Your task to perform on an android device: turn off notifications settings in the gmail app Image 0: 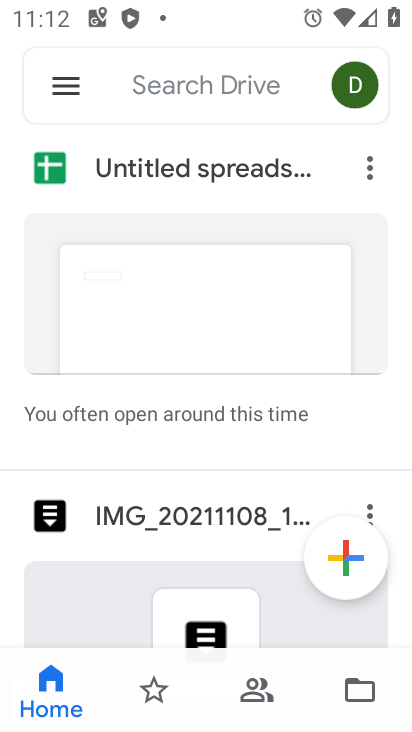
Step 0: press home button
Your task to perform on an android device: turn off notifications settings in the gmail app Image 1: 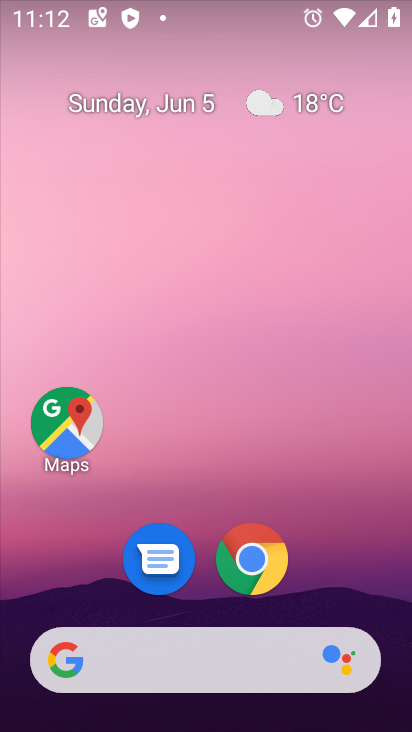
Step 1: drag from (388, 647) to (354, 177)
Your task to perform on an android device: turn off notifications settings in the gmail app Image 2: 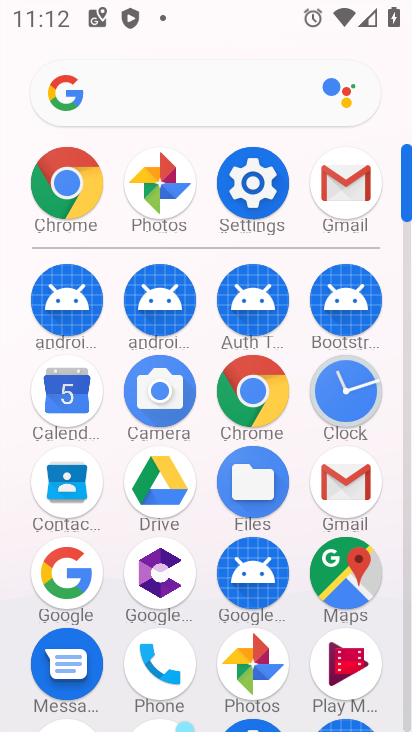
Step 2: click (357, 479)
Your task to perform on an android device: turn off notifications settings in the gmail app Image 3: 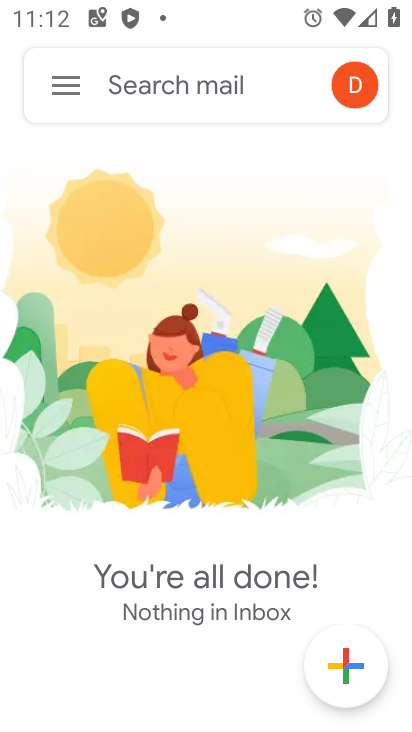
Step 3: click (72, 83)
Your task to perform on an android device: turn off notifications settings in the gmail app Image 4: 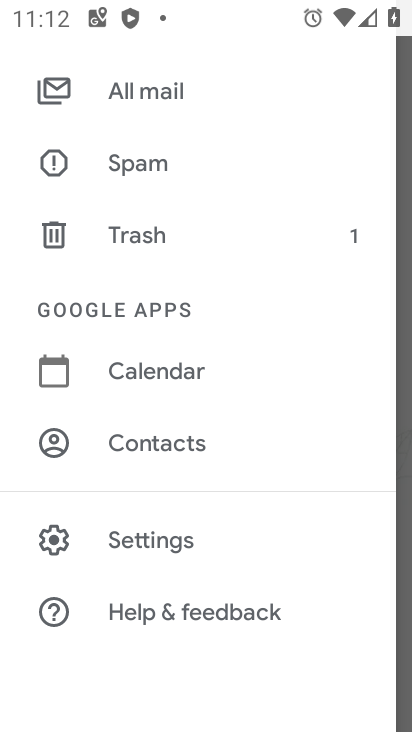
Step 4: click (131, 538)
Your task to perform on an android device: turn off notifications settings in the gmail app Image 5: 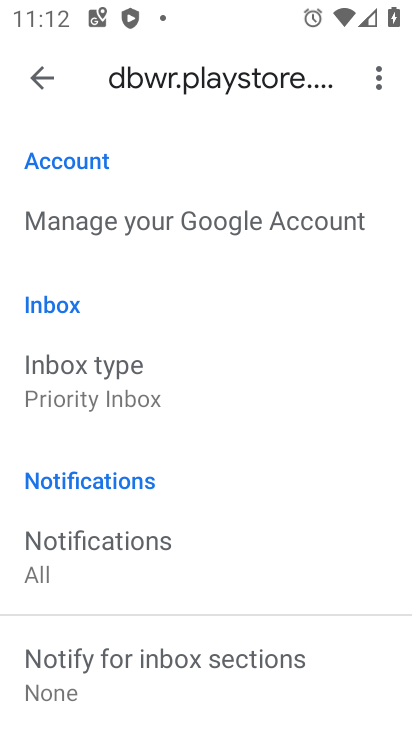
Step 5: click (42, 82)
Your task to perform on an android device: turn off notifications settings in the gmail app Image 6: 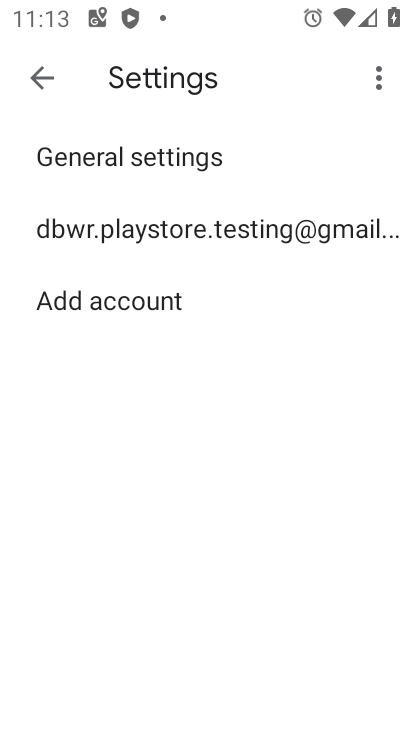
Step 6: click (110, 173)
Your task to perform on an android device: turn off notifications settings in the gmail app Image 7: 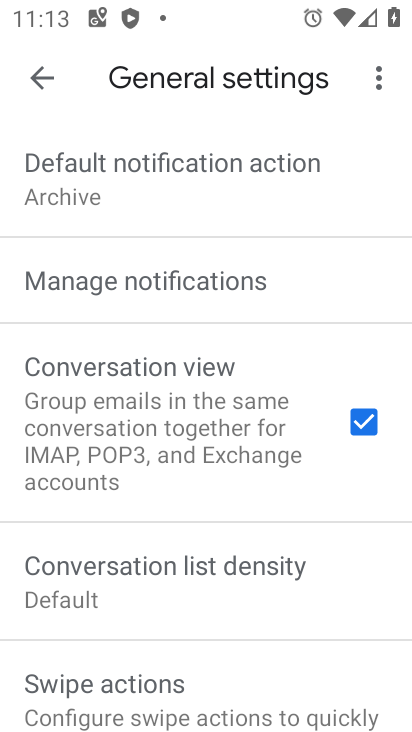
Step 7: click (122, 279)
Your task to perform on an android device: turn off notifications settings in the gmail app Image 8: 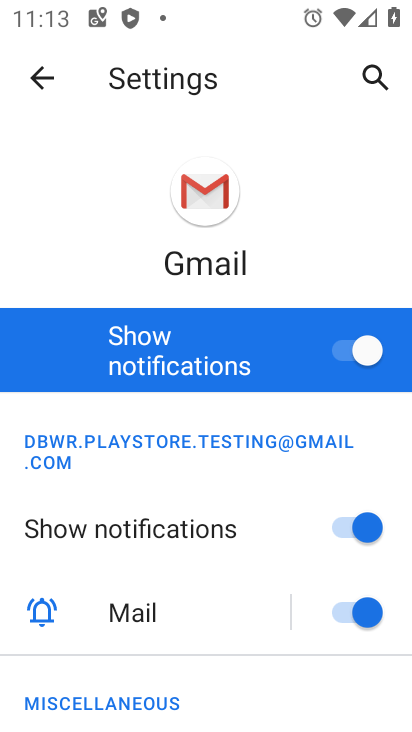
Step 8: click (355, 344)
Your task to perform on an android device: turn off notifications settings in the gmail app Image 9: 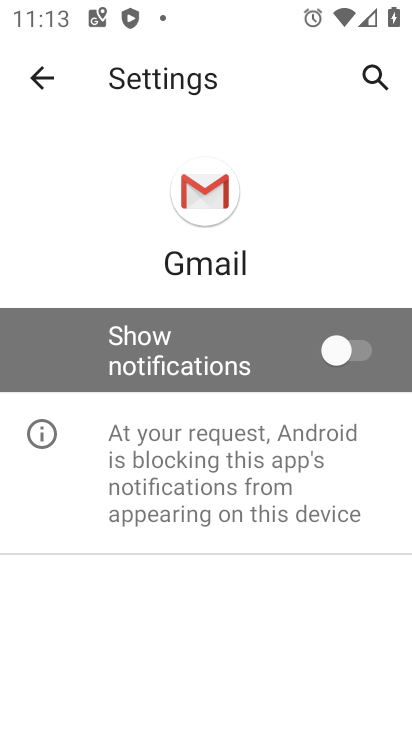
Step 9: task complete